Your task to perform on an android device: toggle improve location accuracy Image 0: 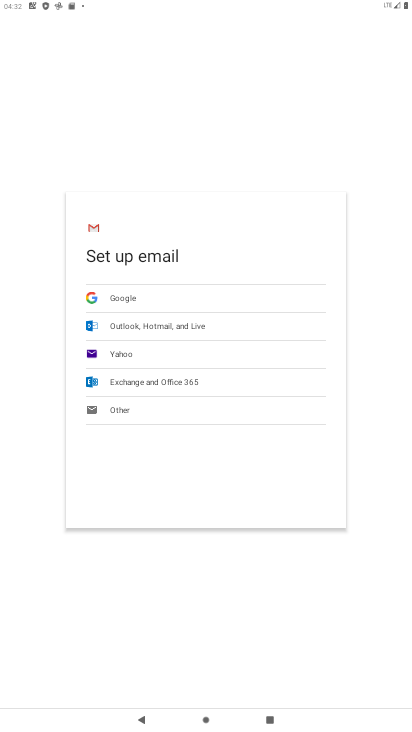
Step 0: press home button
Your task to perform on an android device: toggle improve location accuracy Image 1: 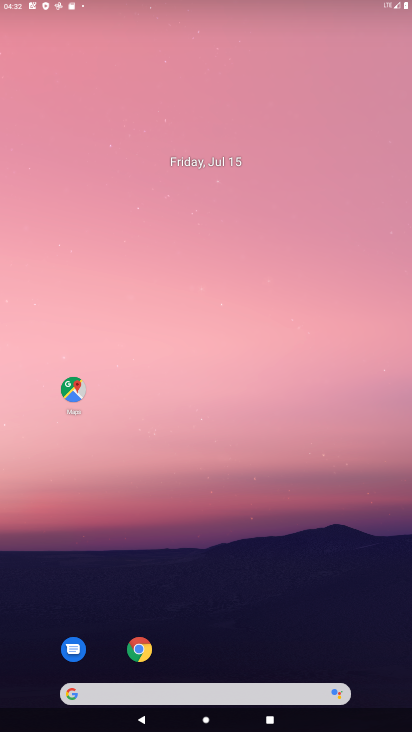
Step 1: drag from (313, 600) to (261, 124)
Your task to perform on an android device: toggle improve location accuracy Image 2: 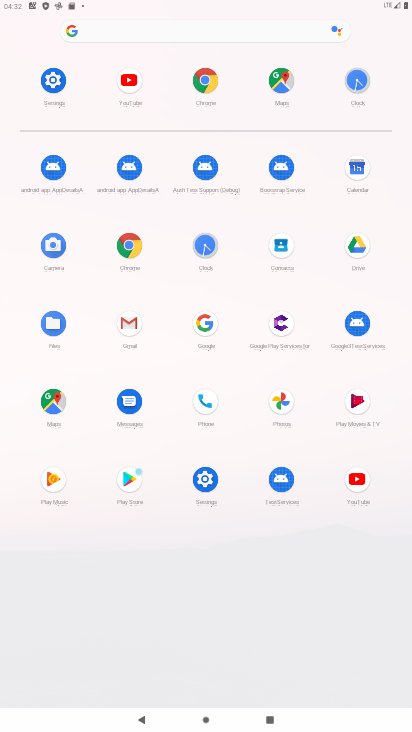
Step 2: click (52, 80)
Your task to perform on an android device: toggle improve location accuracy Image 3: 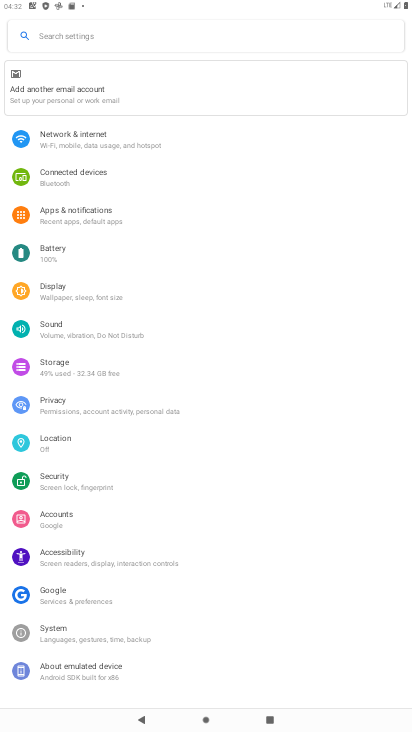
Step 3: click (72, 444)
Your task to perform on an android device: toggle improve location accuracy Image 4: 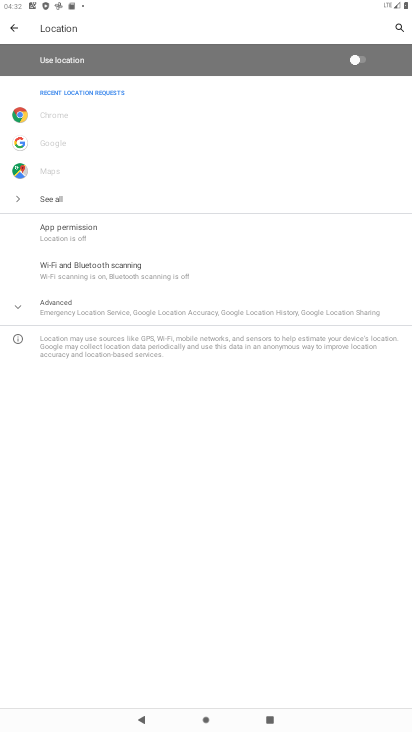
Step 4: click (137, 313)
Your task to perform on an android device: toggle improve location accuracy Image 5: 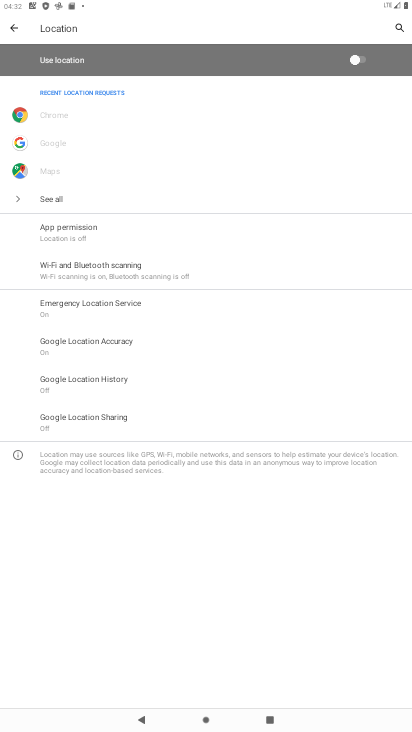
Step 5: click (94, 346)
Your task to perform on an android device: toggle improve location accuracy Image 6: 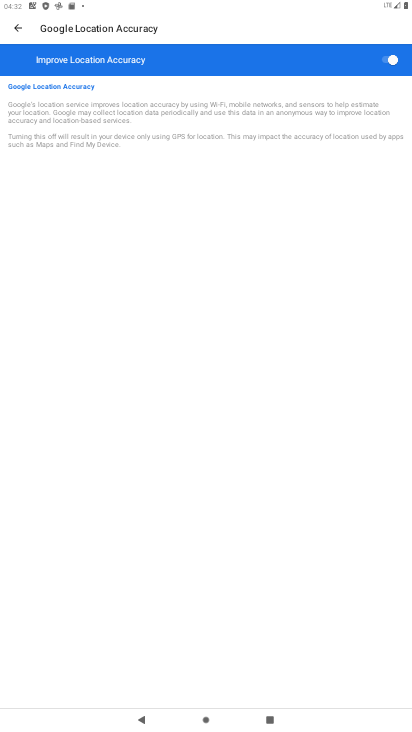
Step 6: click (377, 56)
Your task to perform on an android device: toggle improve location accuracy Image 7: 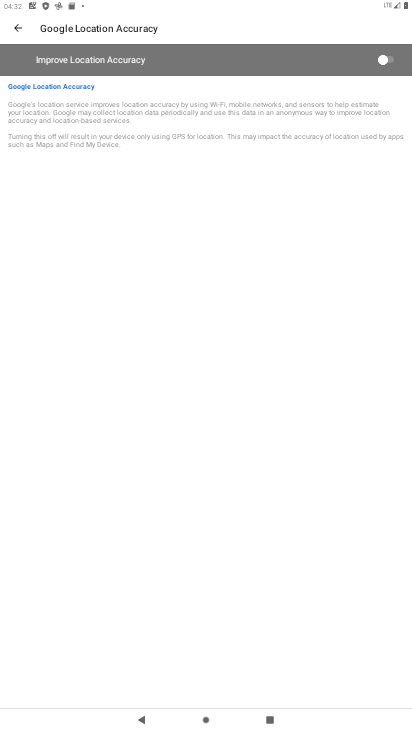
Step 7: task complete